Your task to perform on an android device: change your default location settings in chrome Image 0: 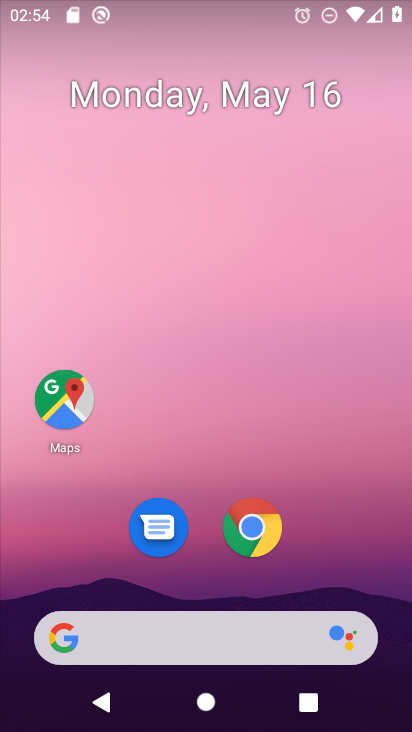
Step 0: click (293, 528)
Your task to perform on an android device: change your default location settings in chrome Image 1: 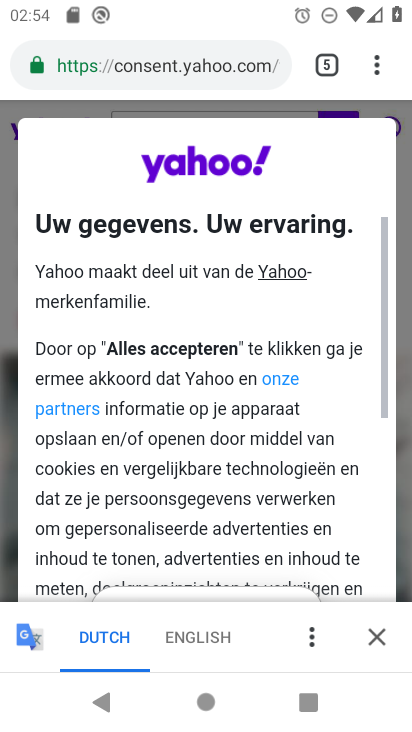
Step 1: click (388, 64)
Your task to perform on an android device: change your default location settings in chrome Image 2: 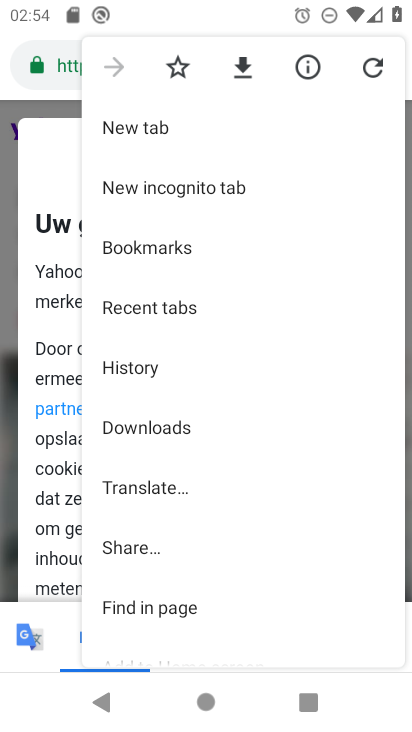
Step 2: drag from (138, 518) to (184, 313)
Your task to perform on an android device: change your default location settings in chrome Image 3: 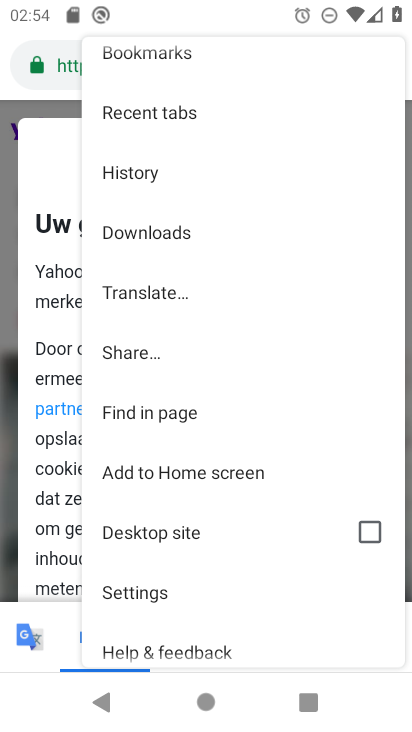
Step 3: click (153, 571)
Your task to perform on an android device: change your default location settings in chrome Image 4: 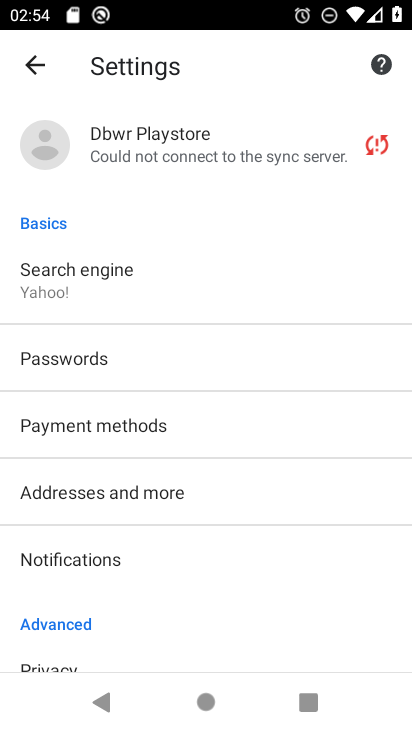
Step 4: click (187, 511)
Your task to perform on an android device: change your default location settings in chrome Image 5: 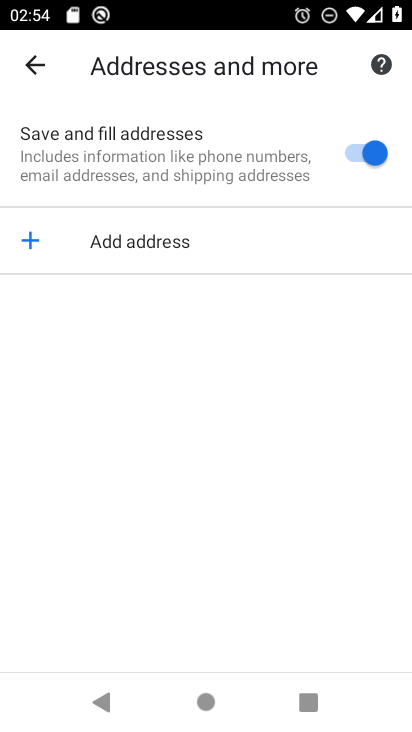
Step 5: task complete